Your task to perform on an android device: turn pop-ups on in chrome Image 0: 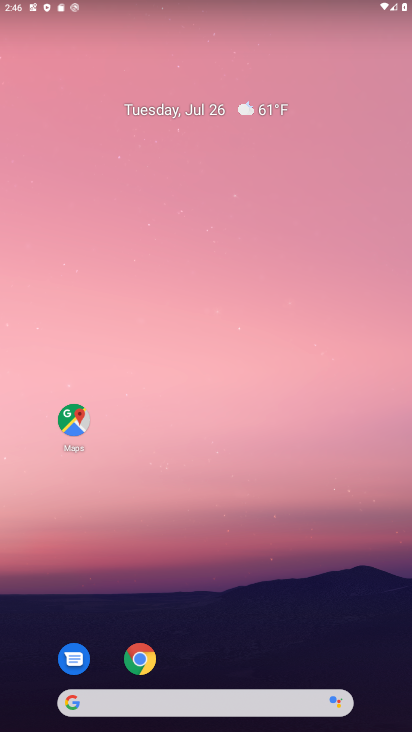
Step 0: click (140, 670)
Your task to perform on an android device: turn pop-ups on in chrome Image 1: 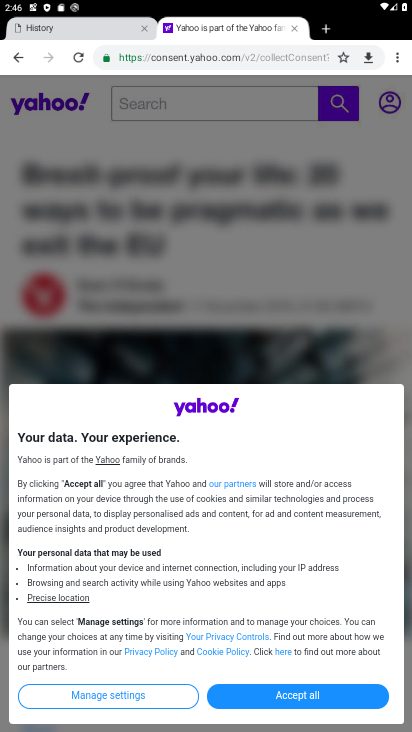
Step 1: click (393, 54)
Your task to perform on an android device: turn pop-ups on in chrome Image 2: 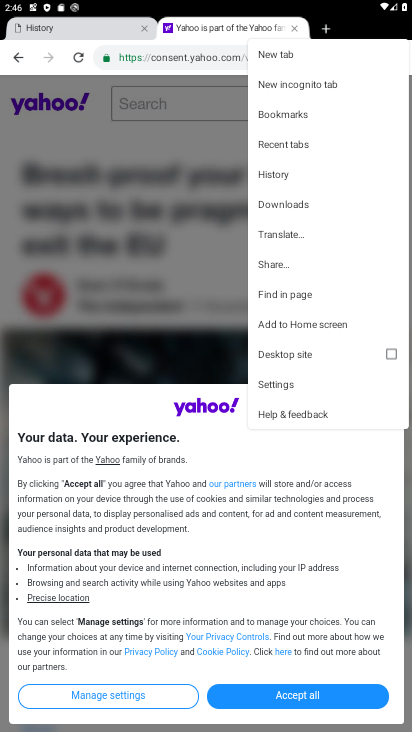
Step 2: click (293, 382)
Your task to perform on an android device: turn pop-ups on in chrome Image 3: 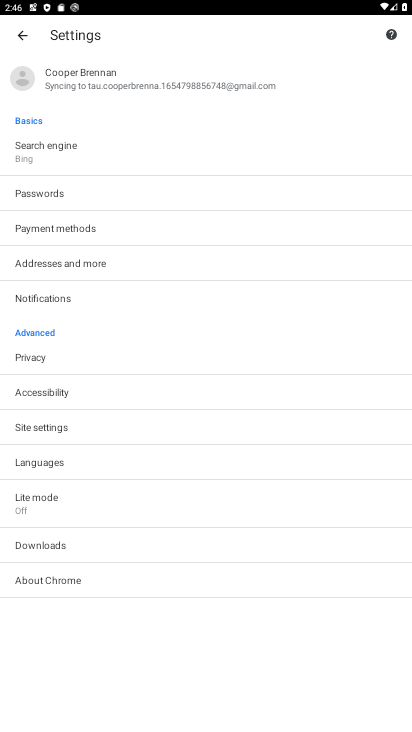
Step 3: click (28, 426)
Your task to perform on an android device: turn pop-ups on in chrome Image 4: 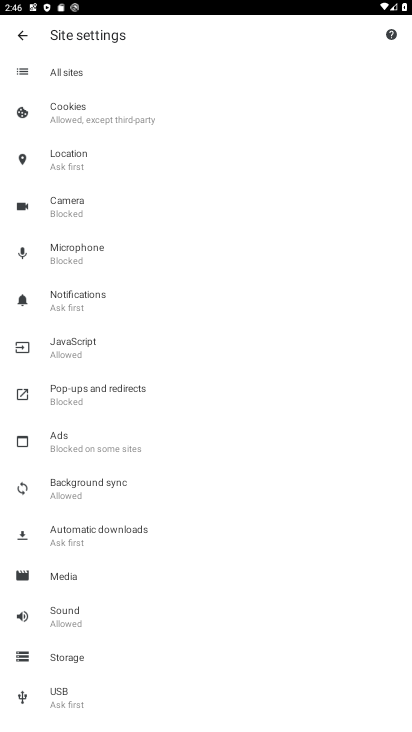
Step 4: click (101, 393)
Your task to perform on an android device: turn pop-ups on in chrome Image 5: 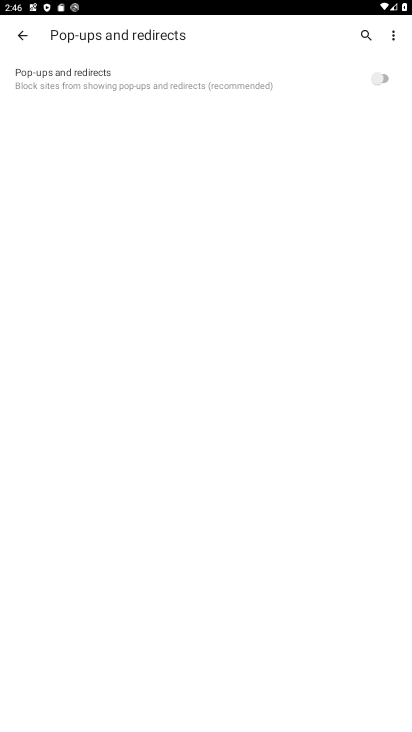
Step 5: click (381, 72)
Your task to perform on an android device: turn pop-ups on in chrome Image 6: 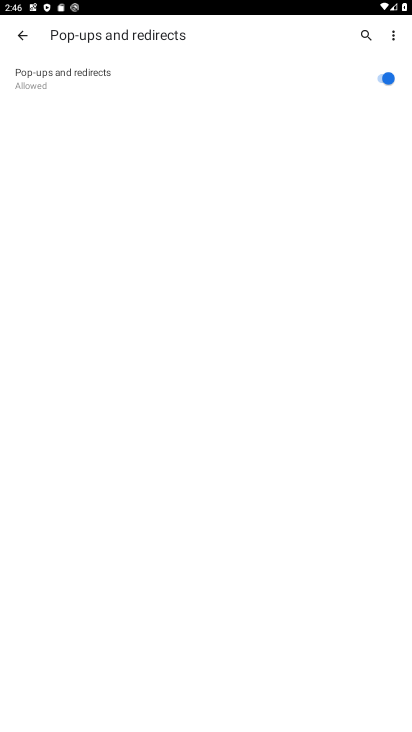
Step 6: task complete